Your task to perform on an android device: Go to settings Image 0: 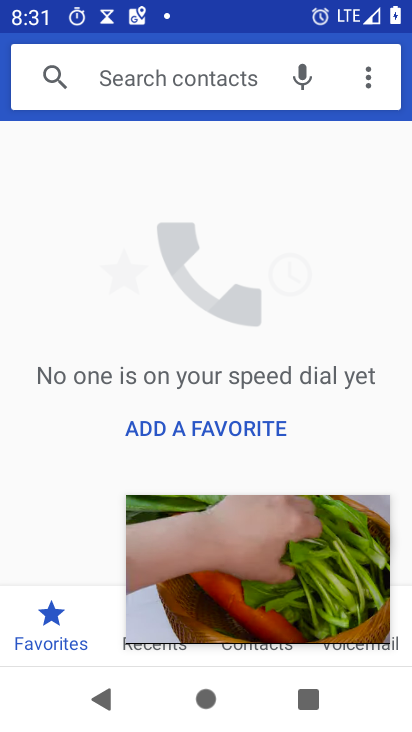
Step 0: drag from (273, 560) to (322, 713)
Your task to perform on an android device: Go to settings Image 1: 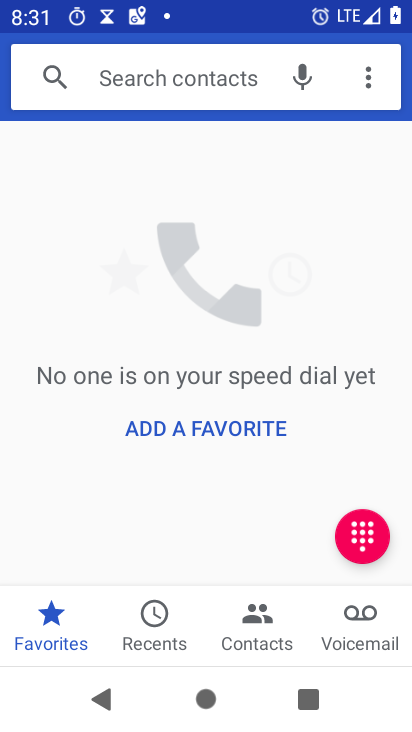
Step 1: press home button
Your task to perform on an android device: Go to settings Image 2: 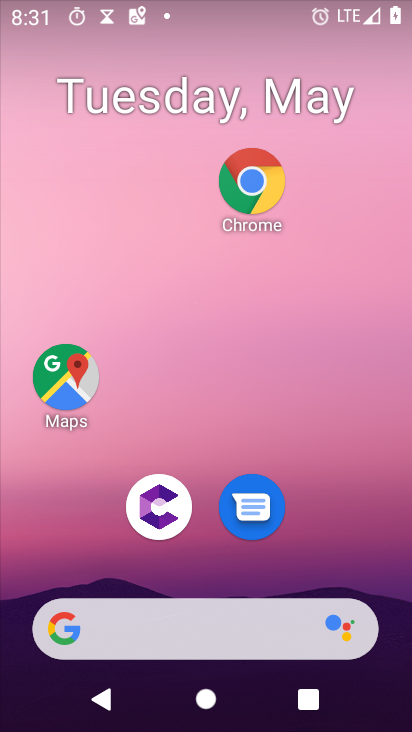
Step 2: drag from (332, 574) to (332, 14)
Your task to perform on an android device: Go to settings Image 3: 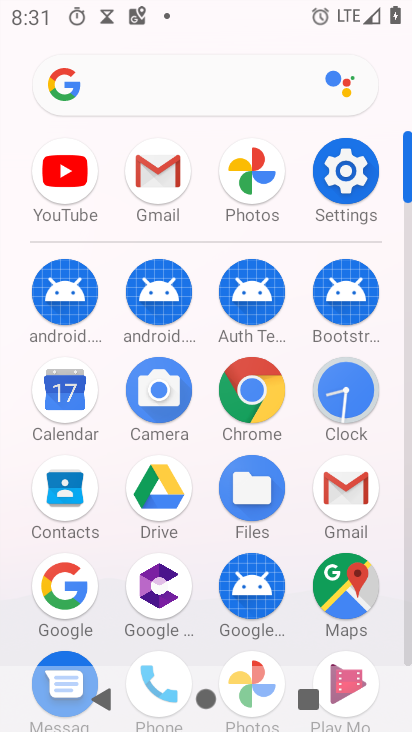
Step 3: click (354, 176)
Your task to perform on an android device: Go to settings Image 4: 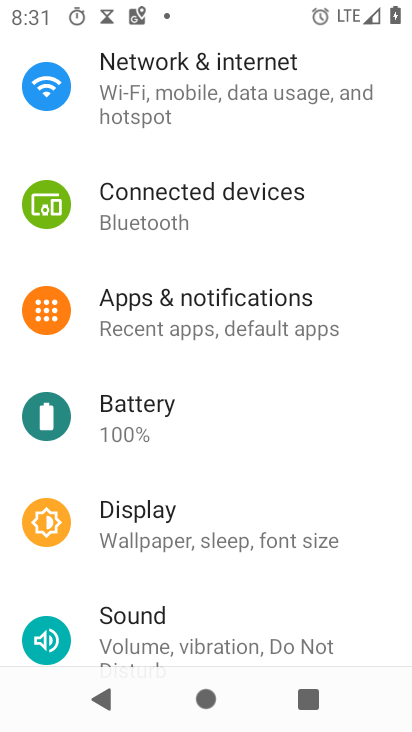
Step 4: task complete